Your task to perform on an android device: Turn off the flashlight Image 0: 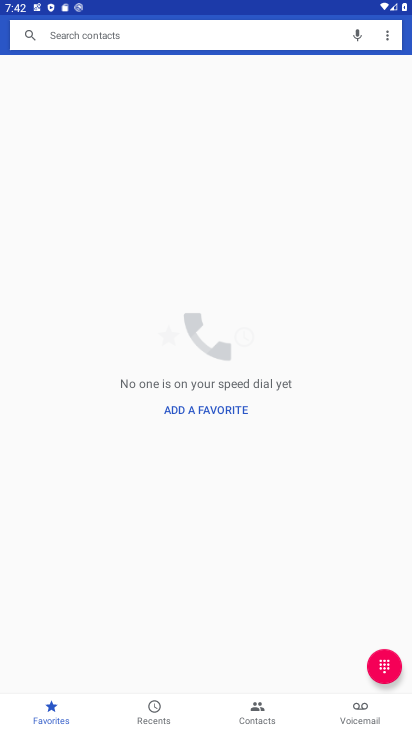
Step 0: press home button
Your task to perform on an android device: Turn off the flashlight Image 1: 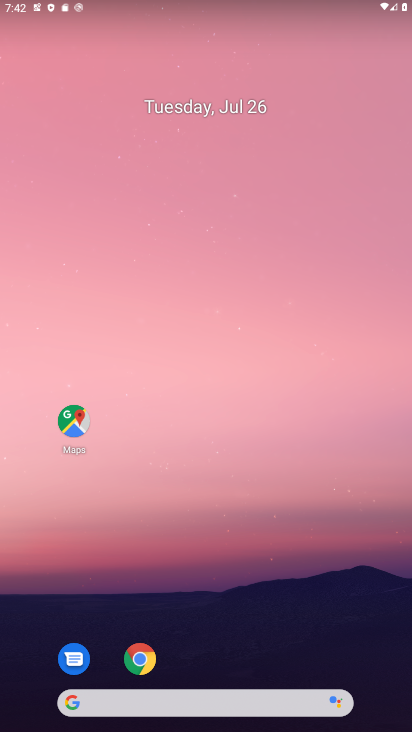
Step 1: drag from (219, 687) to (135, 190)
Your task to perform on an android device: Turn off the flashlight Image 2: 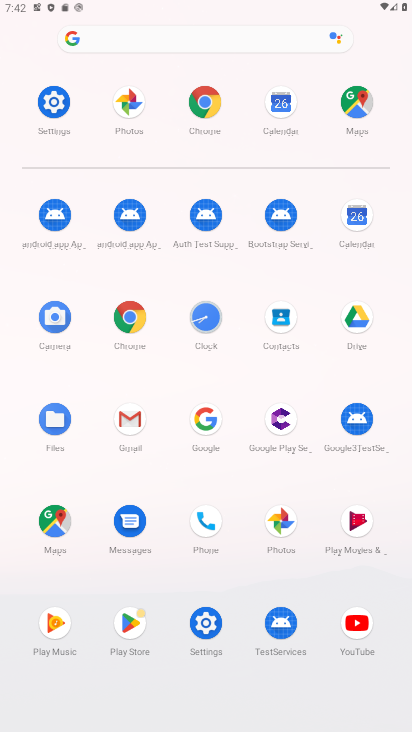
Step 2: click (204, 643)
Your task to perform on an android device: Turn off the flashlight Image 3: 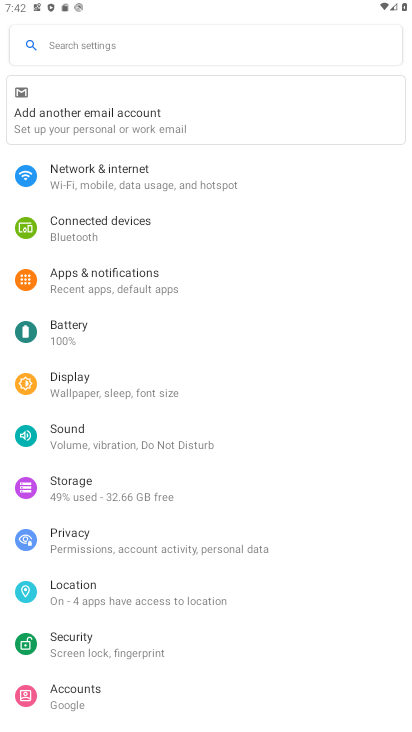
Step 3: task complete